Your task to perform on an android device: Turn on the flashlight Image 0: 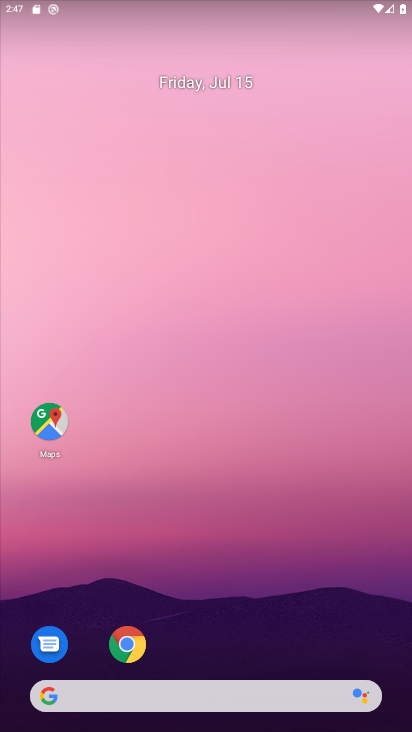
Step 0: drag from (379, 590) to (257, 11)
Your task to perform on an android device: Turn on the flashlight Image 1: 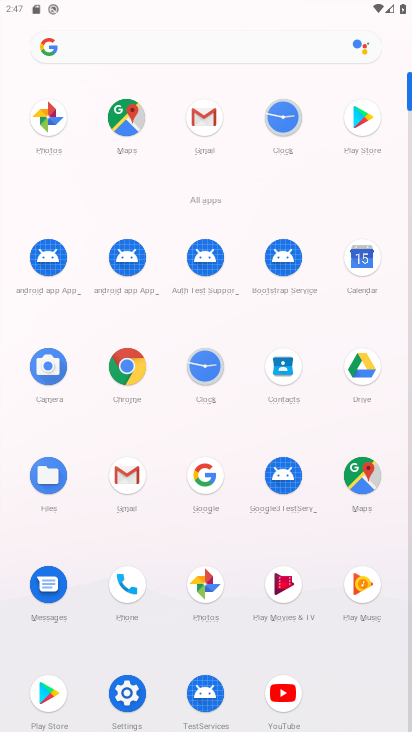
Step 1: click (120, 689)
Your task to perform on an android device: Turn on the flashlight Image 2: 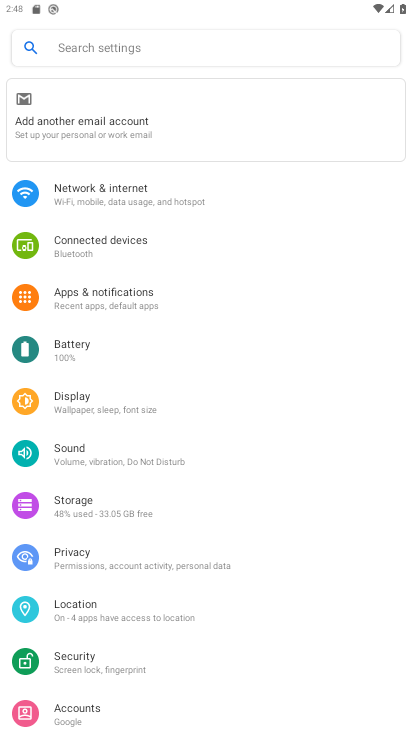
Step 2: click (64, 405)
Your task to perform on an android device: Turn on the flashlight Image 3: 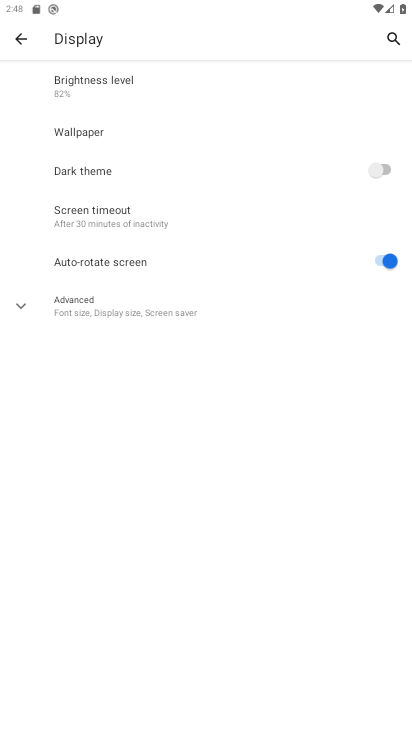
Step 3: task complete